Your task to perform on an android device: open device folders in google photos Image 0: 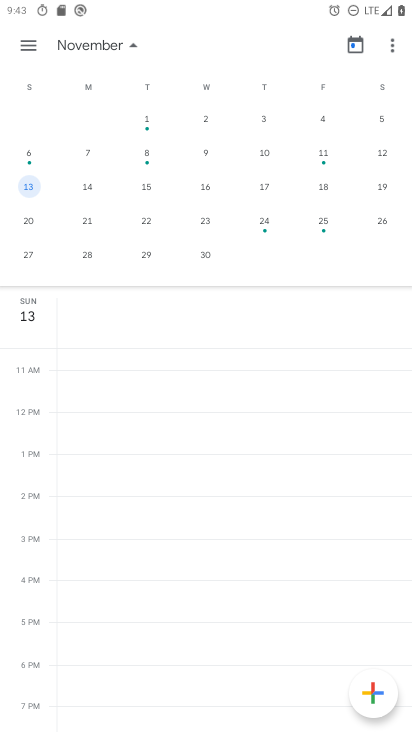
Step 0: press home button
Your task to perform on an android device: open device folders in google photos Image 1: 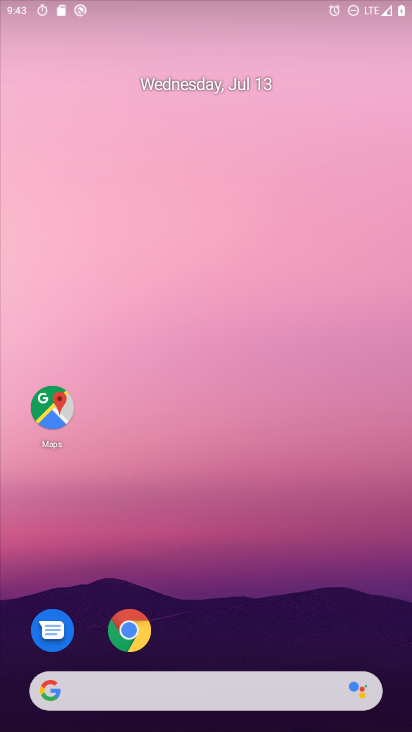
Step 1: drag from (388, 696) to (297, 52)
Your task to perform on an android device: open device folders in google photos Image 2: 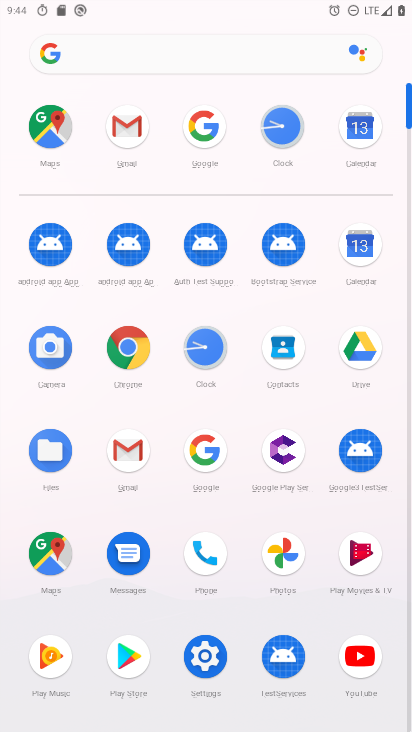
Step 2: click (266, 555)
Your task to perform on an android device: open device folders in google photos Image 3: 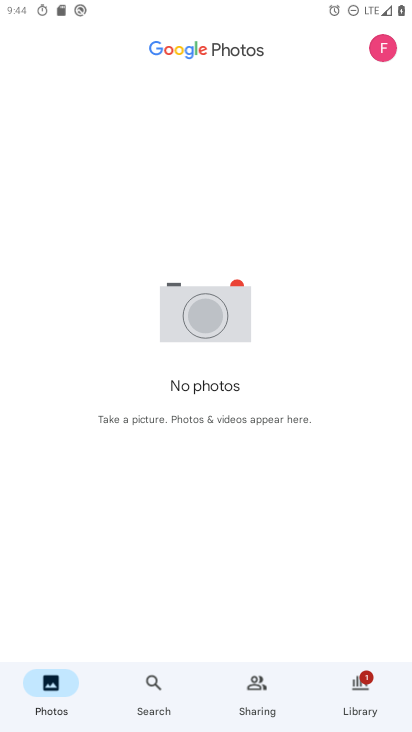
Step 3: click (388, 56)
Your task to perform on an android device: open device folders in google photos Image 4: 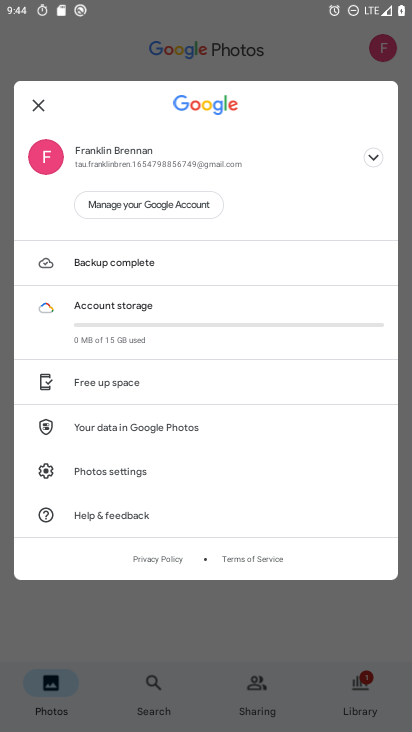
Step 4: task complete